Your task to perform on an android device: open chrome privacy settings Image 0: 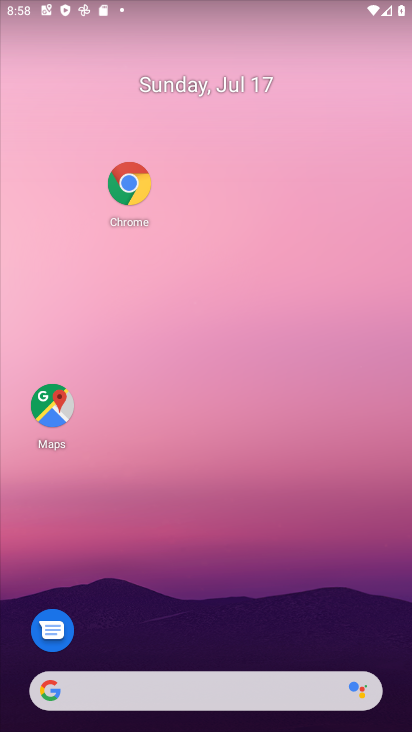
Step 0: click (127, 195)
Your task to perform on an android device: open chrome privacy settings Image 1: 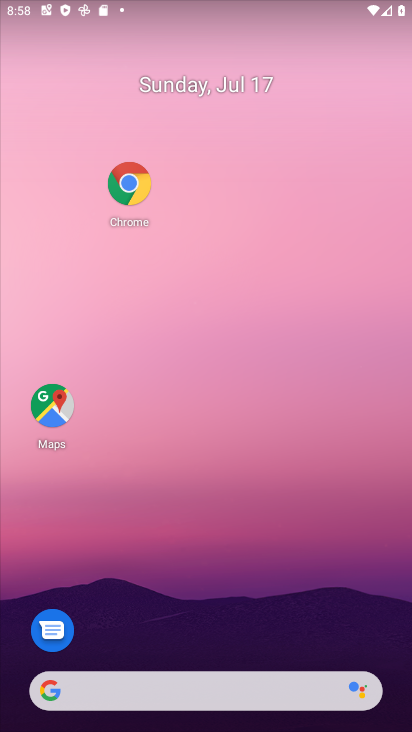
Step 1: click (127, 195)
Your task to perform on an android device: open chrome privacy settings Image 2: 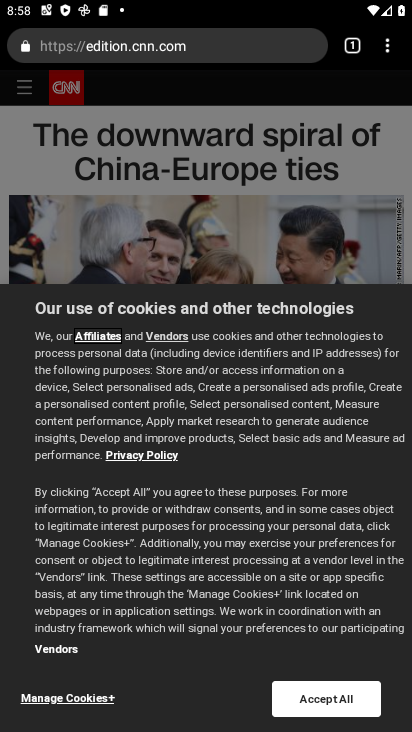
Step 2: click (385, 45)
Your task to perform on an android device: open chrome privacy settings Image 3: 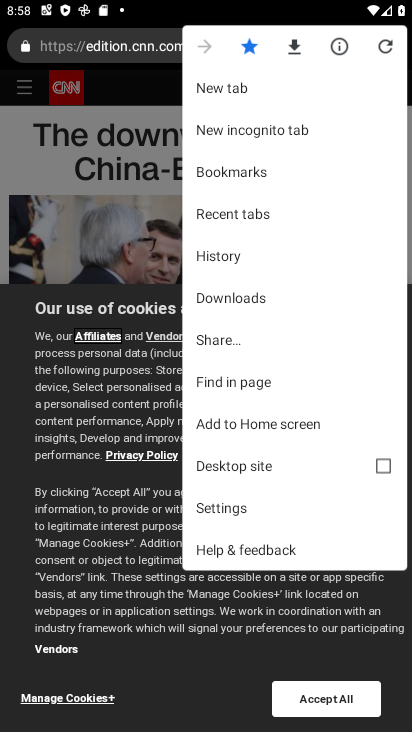
Step 3: click (225, 507)
Your task to perform on an android device: open chrome privacy settings Image 4: 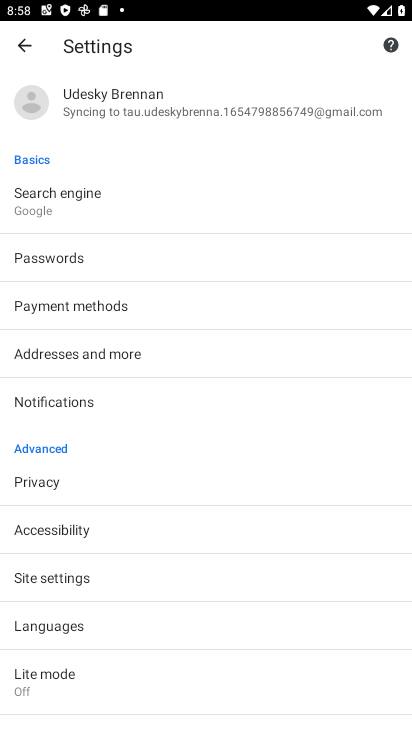
Step 4: click (47, 484)
Your task to perform on an android device: open chrome privacy settings Image 5: 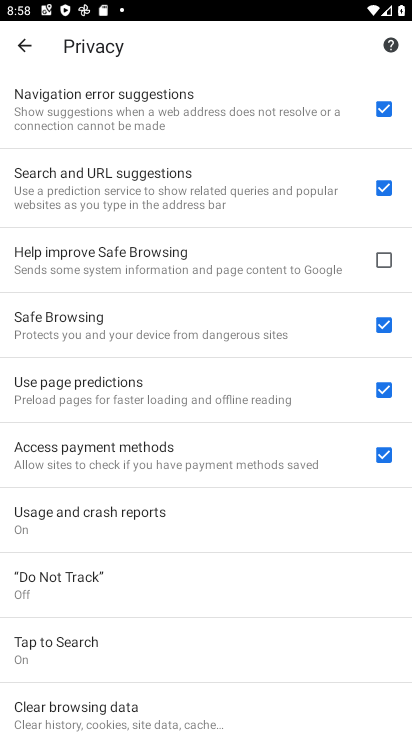
Step 5: task complete